Your task to perform on an android device: Who is the president of France? Image 0: 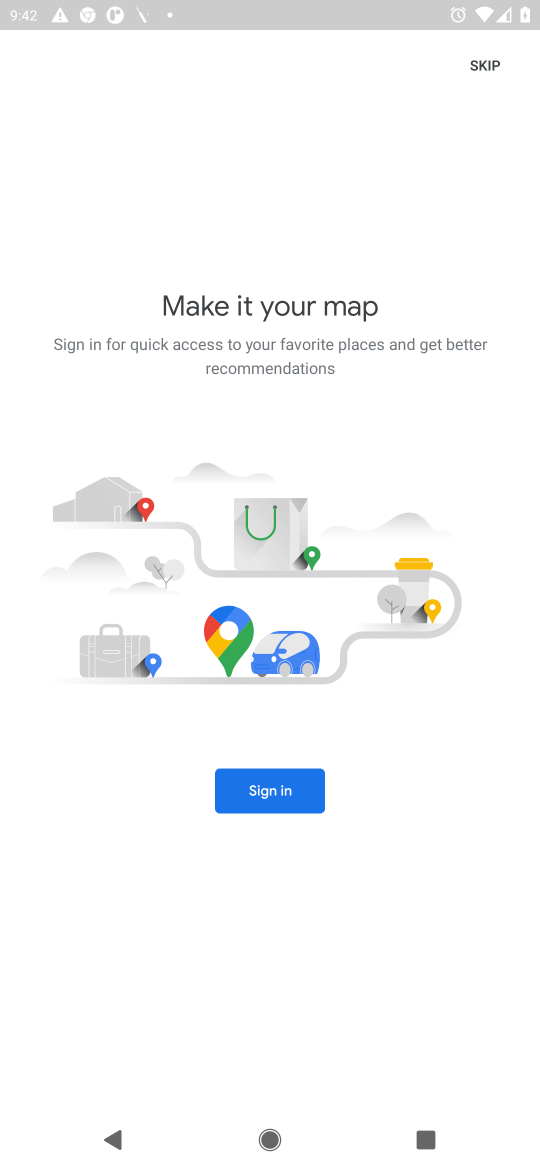
Step 0: press home button
Your task to perform on an android device: Who is the president of France? Image 1: 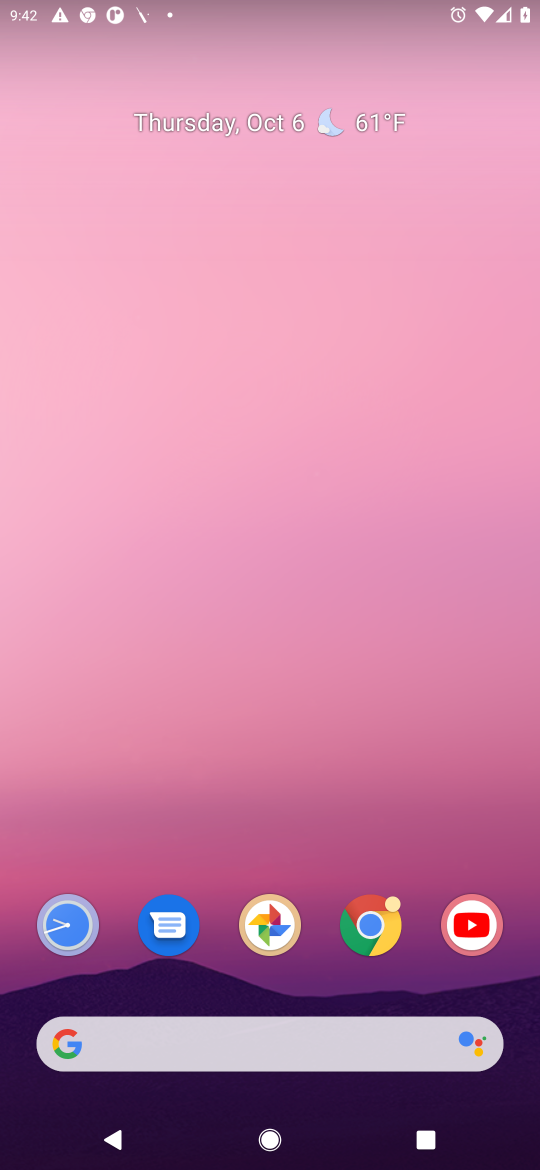
Step 1: click (173, 1049)
Your task to perform on an android device: Who is the president of France? Image 2: 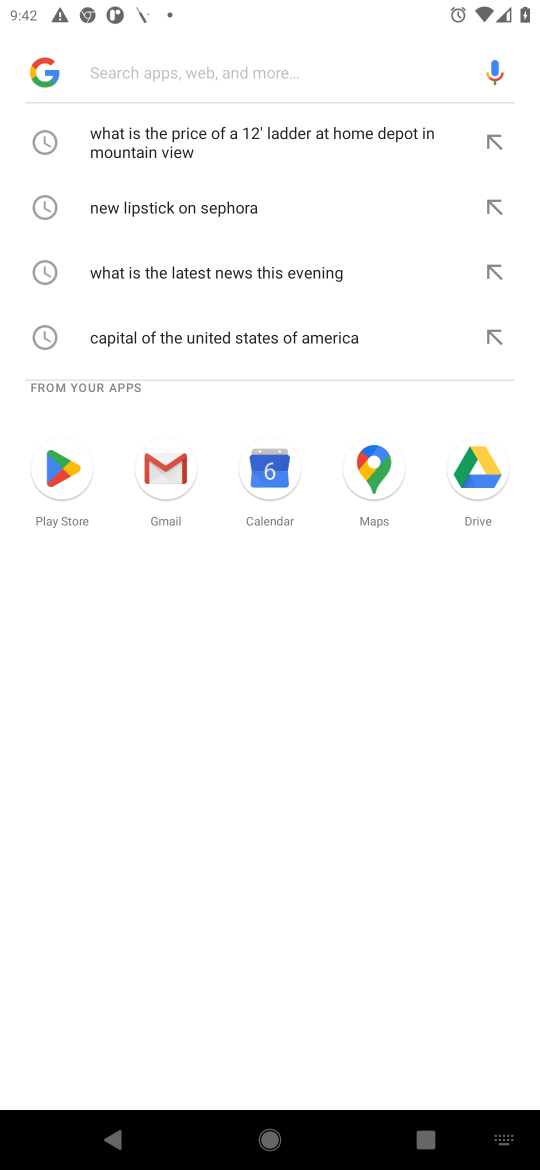
Step 2: type "president of France?"
Your task to perform on an android device: Who is the president of France? Image 3: 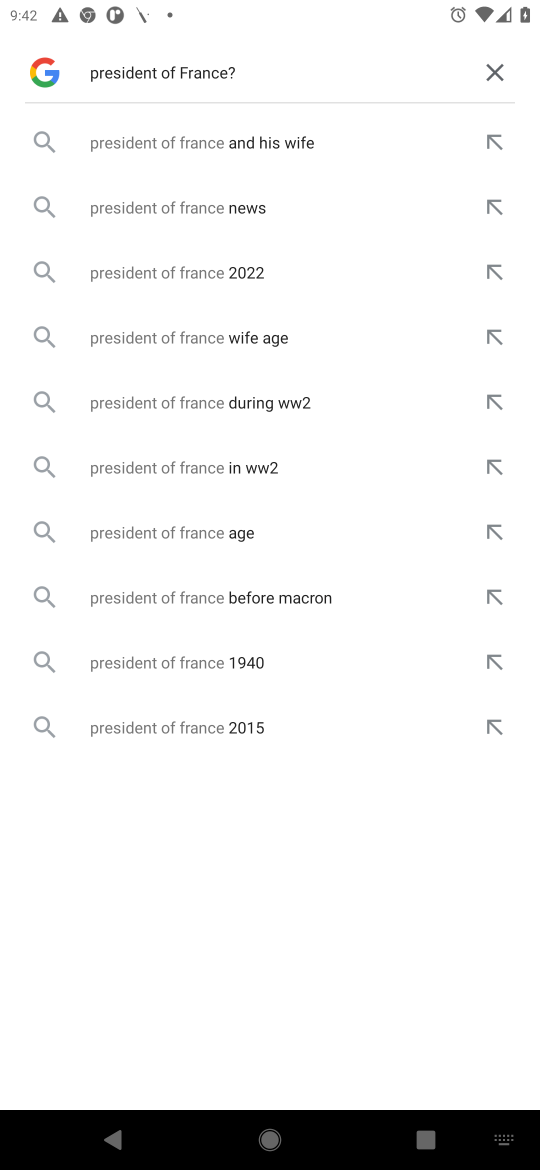
Step 3: type ""
Your task to perform on an android device: Who is the president of France? Image 4: 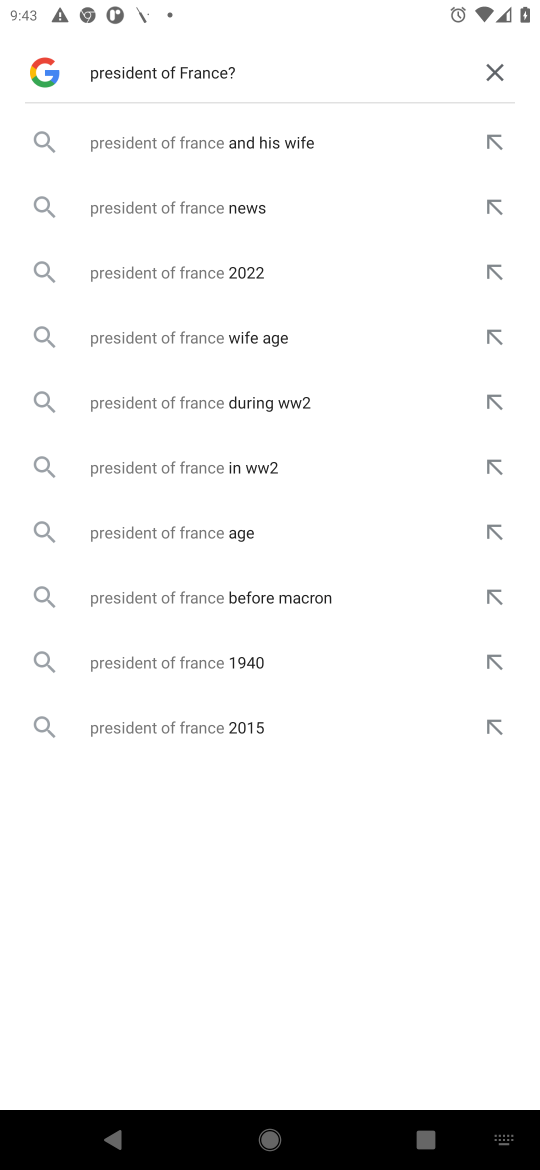
Step 4: task complete